Your task to perform on an android device: turn on javascript in the chrome app Image 0: 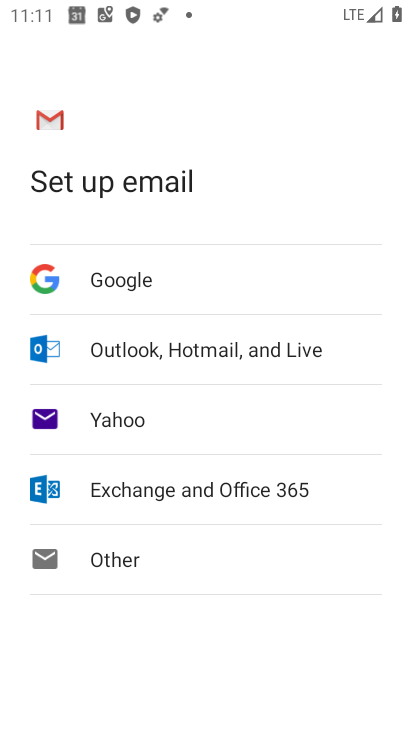
Step 0: press home button
Your task to perform on an android device: turn on javascript in the chrome app Image 1: 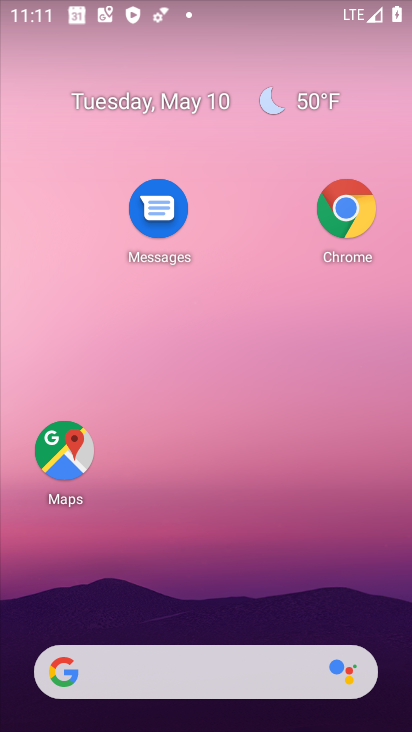
Step 1: drag from (191, 636) to (134, 21)
Your task to perform on an android device: turn on javascript in the chrome app Image 2: 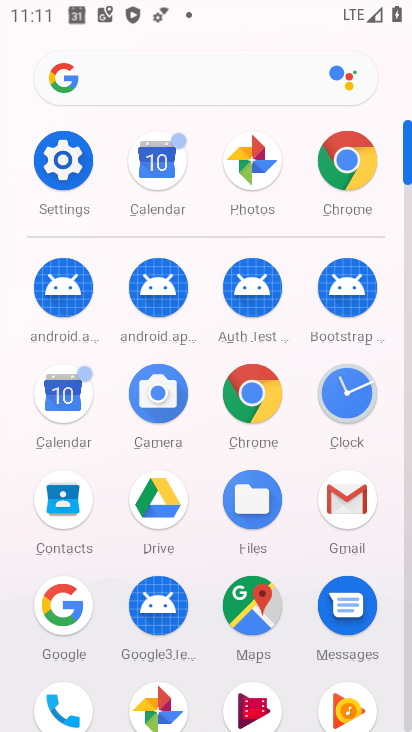
Step 2: click (245, 376)
Your task to perform on an android device: turn on javascript in the chrome app Image 3: 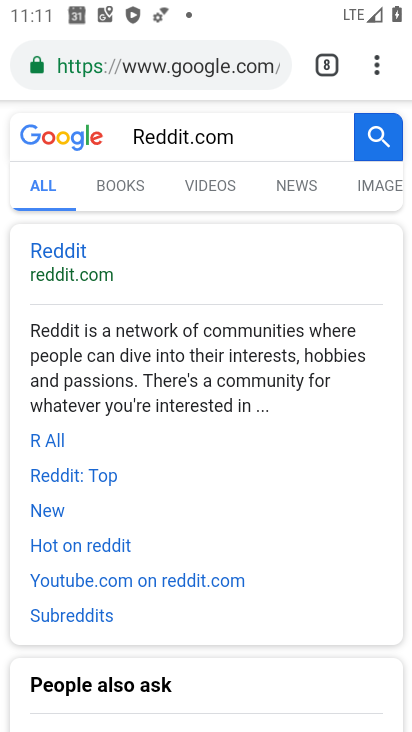
Step 3: click (383, 65)
Your task to perform on an android device: turn on javascript in the chrome app Image 4: 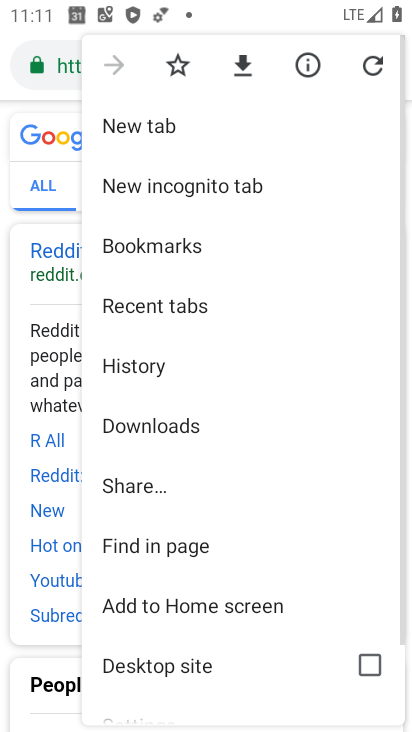
Step 4: drag from (249, 634) to (228, 85)
Your task to perform on an android device: turn on javascript in the chrome app Image 5: 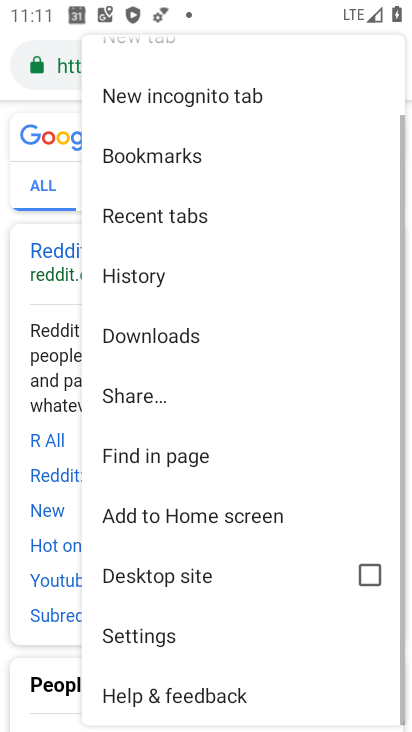
Step 5: click (141, 619)
Your task to perform on an android device: turn on javascript in the chrome app Image 6: 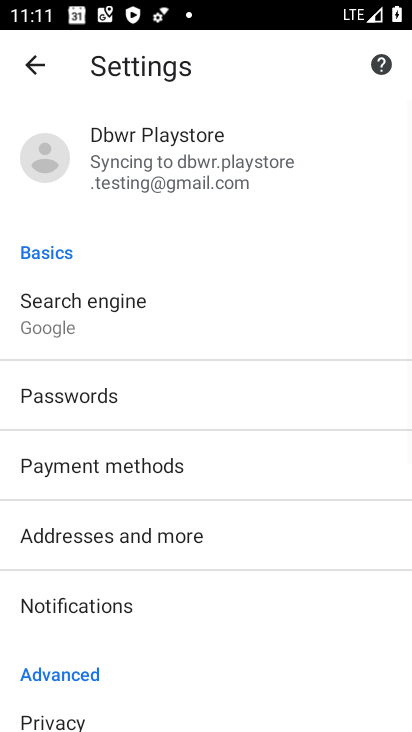
Step 6: drag from (141, 619) to (105, 260)
Your task to perform on an android device: turn on javascript in the chrome app Image 7: 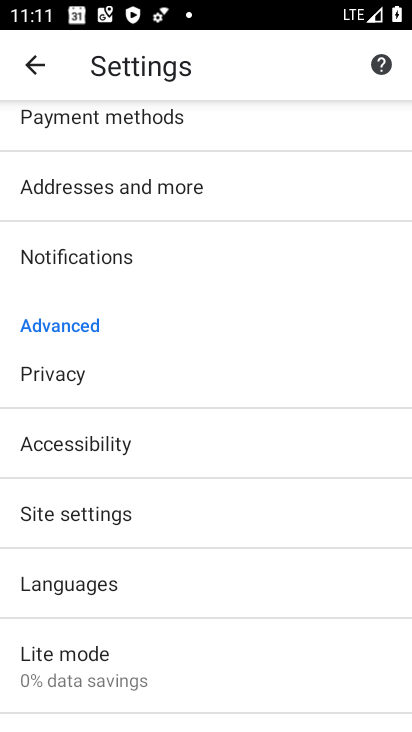
Step 7: click (90, 533)
Your task to perform on an android device: turn on javascript in the chrome app Image 8: 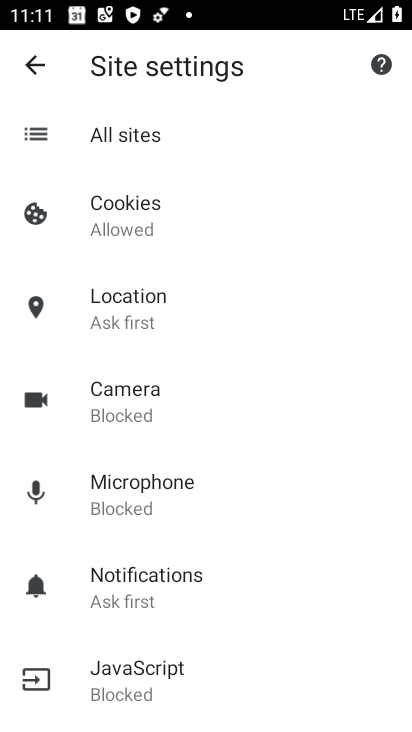
Step 8: click (146, 662)
Your task to perform on an android device: turn on javascript in the chrome app Image 9: 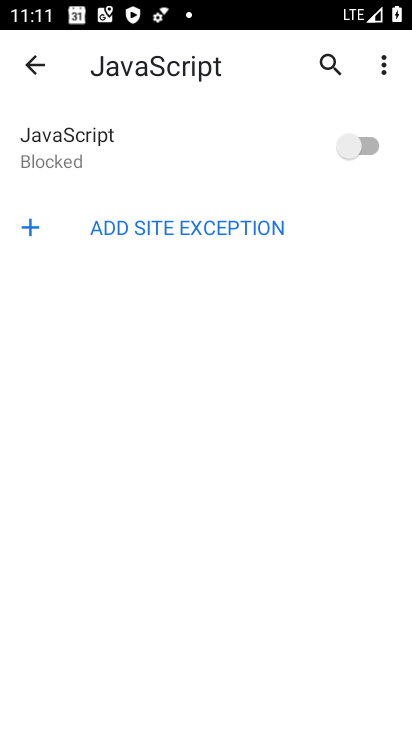
Step 9: click (351, 147)
Your task to perform on an android device: turn on javascript in the chrome app Image 10: 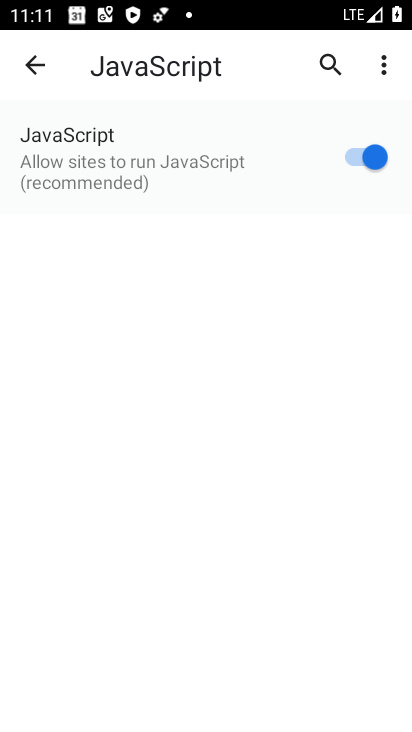
Step 10: task complete